Your task to perform on an android device: Go to location settings Image 0: 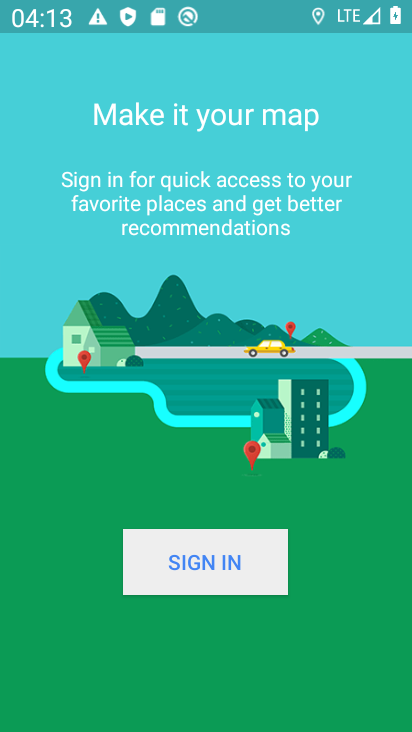
Step 0: drag from (300, 693) to (270, 399)
Your task to perform on an android device: Go to location settings Image 1: 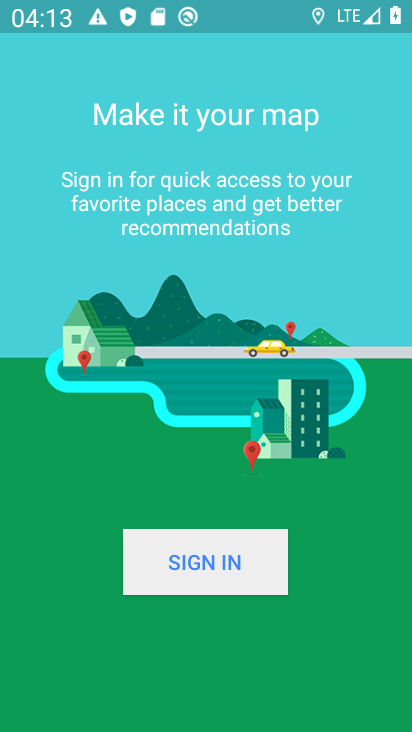
Step 1: press back button
Your task to perform on an android device: Go to location settings Image 2: 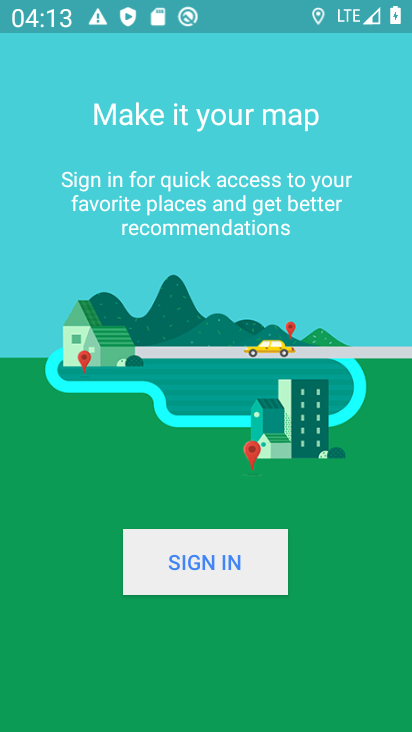
Step 2: press back button
Your task to perform on an android device: Go to location settings Image 3: 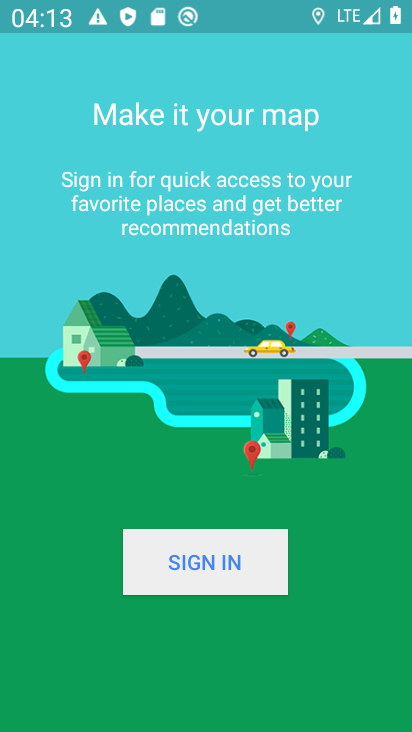
Step 3: press back button
Your task to perform on an android device: Go to location settings Image 4: 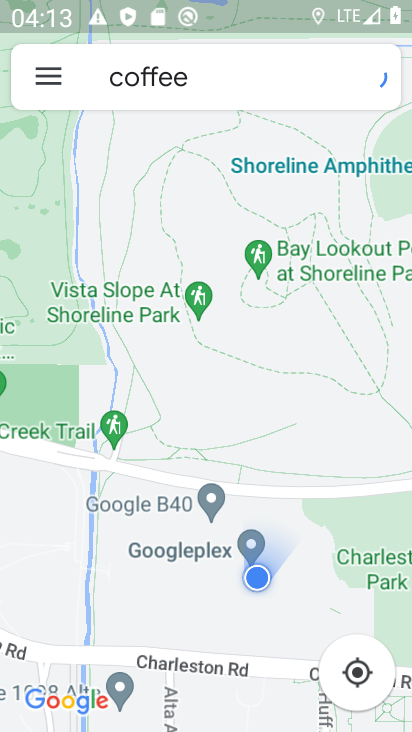
Step 4: press home button
Your task to perform on an android device: Go to location settings Image 5: 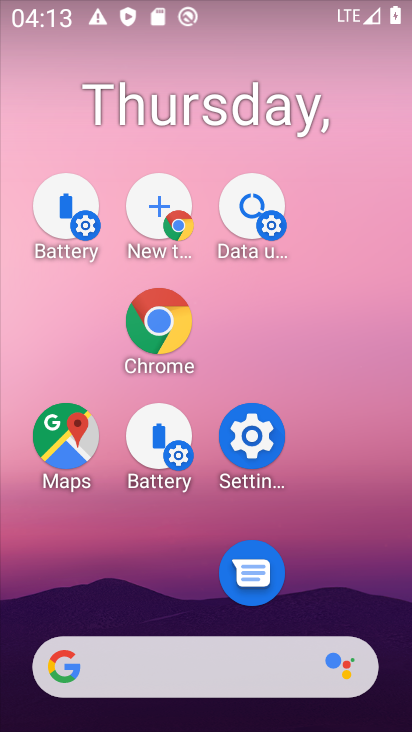
Step 5: drag from (275, 662) to (201, 91)
Your task to perform on an android device: Go to location settings Image 6: 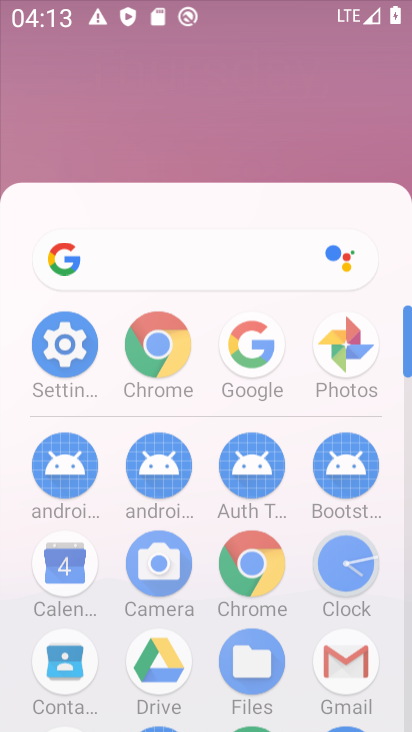
Step 6: drag from (217, 542) to (185, 212)
Your task to perform on an android device: Go to location settings Image 7: 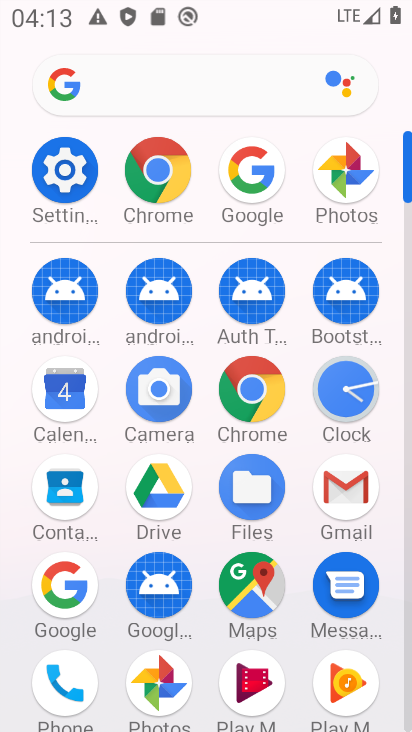
Step 7: click (56, 178)
Your task to perform on an android device: Go to location settings Image 8: 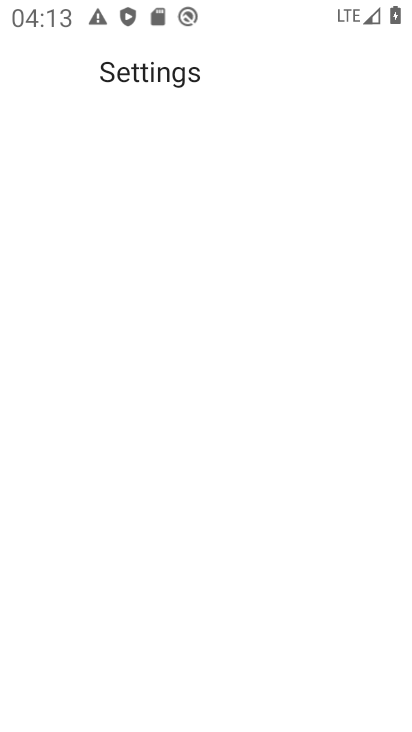
Step 8: click (59, 173)
Your task to perform on an android device: Go to location settings Image 9: 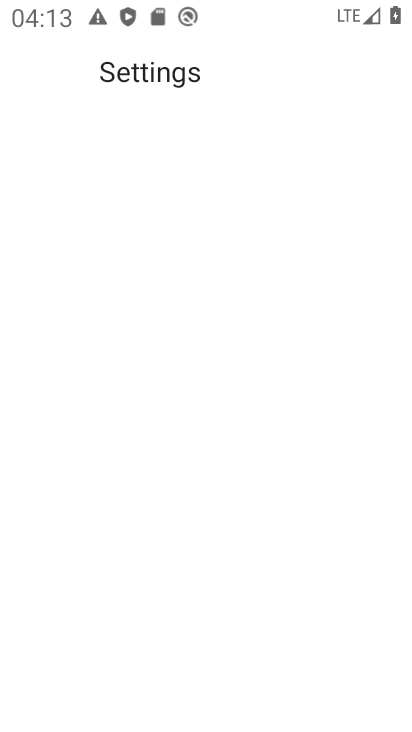
Step 9: click (60, 173)
Your task to perform on an android device: Go to location settings Image 10: 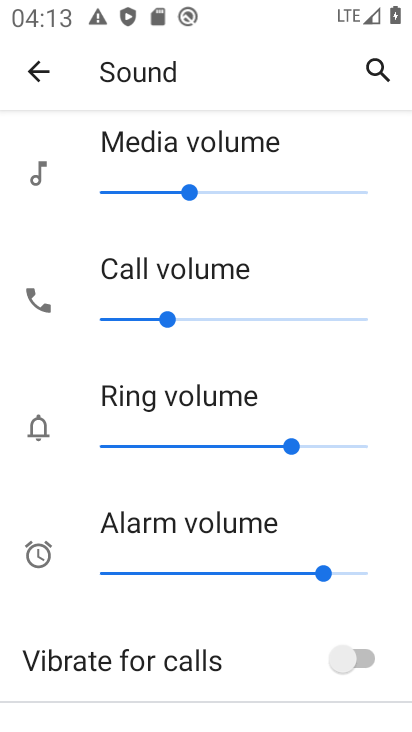
Step 10: click (34, 77)
Your task to perform on an android device: Go to location settings Image 11: 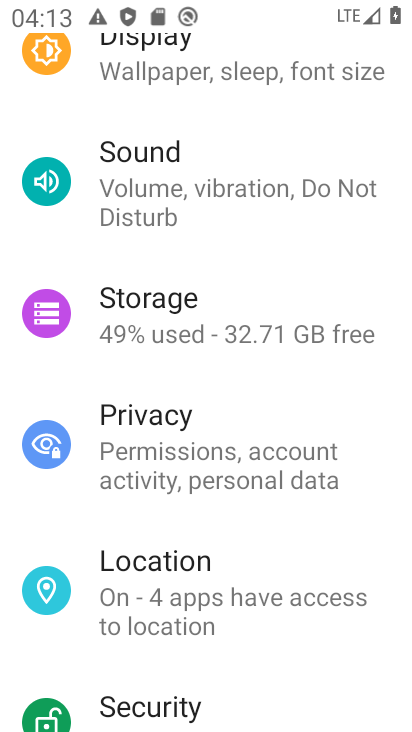
Step 11: click (177, 601)
Your task to perform on an android device: Go to location settings Image 12: 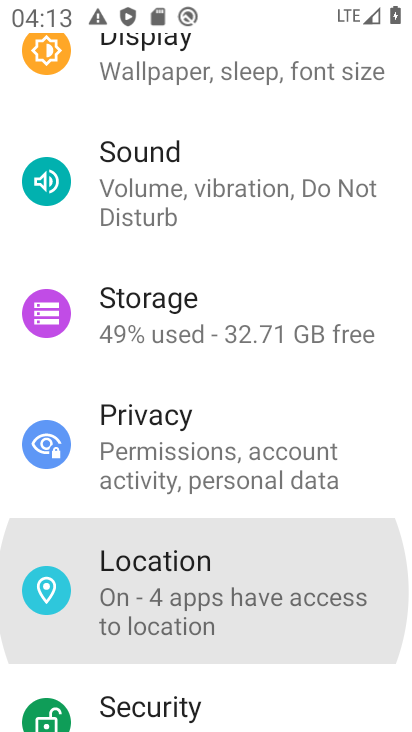
Step 12: click (177, 602)
Your task to perform on an android device: Go to location settings Image 13: 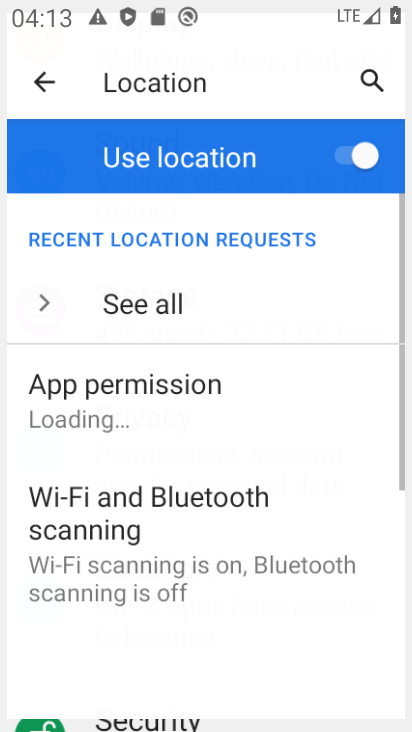
Step 13: click (177, 602)
Your task to perform on an android device: Go to location settings Image 14: 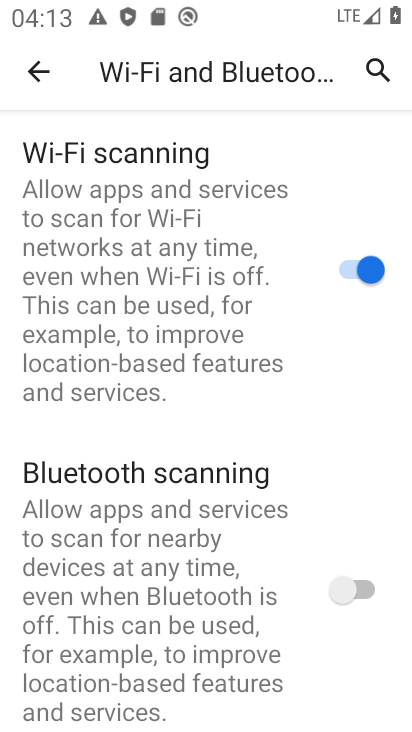
Step 14: click (27, 75)
Your task to perform on an android device: Go to location settings Image 15: 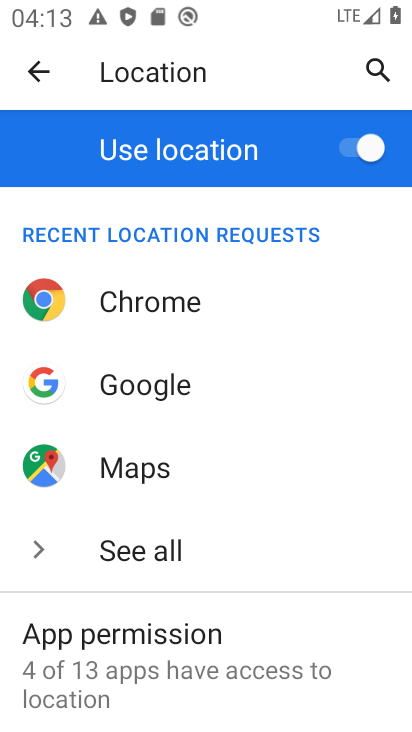
Step 15: task complete